Your task to perform on an android device: Set the phone to "Do not disturb". Image 0: 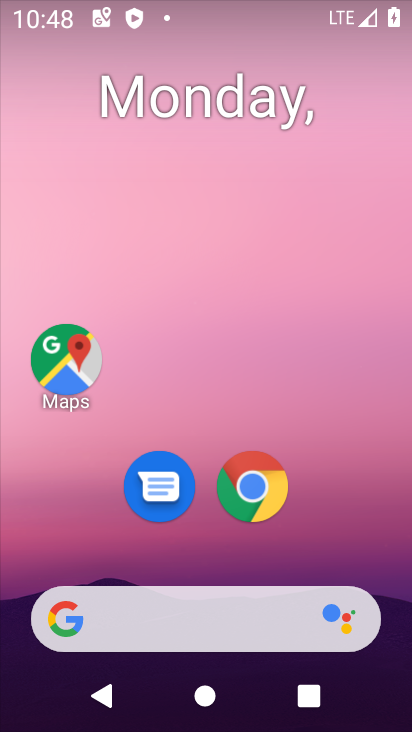
Step 0: press home button
Your task to perform on an android device: Set the phone to "Do not disturb". Image 1: 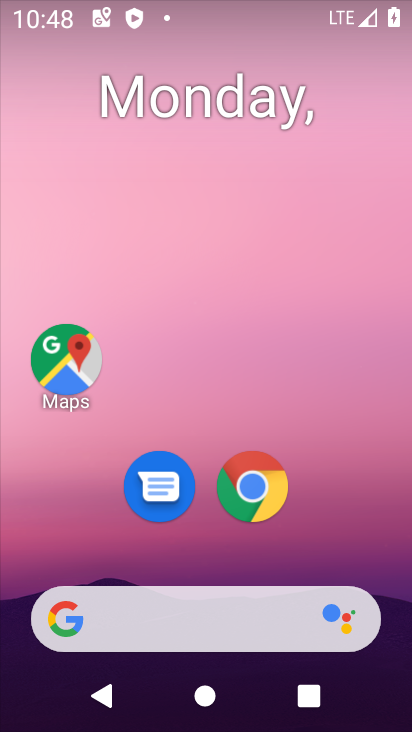
Step 1: drag from (268, 9) to (182, 442)
Your task to perform on an android device: Set the phone to "Do not disturb". Image 2: 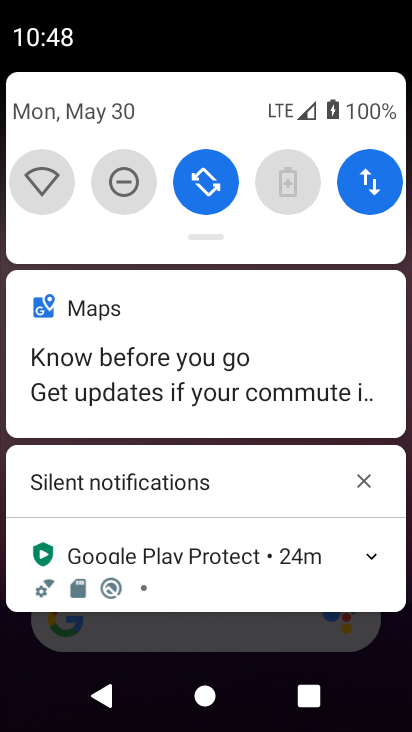
Step 2: click (114, 188)
Your task to perform on an android device: Set the phone to "Do not disturb". Image 3: 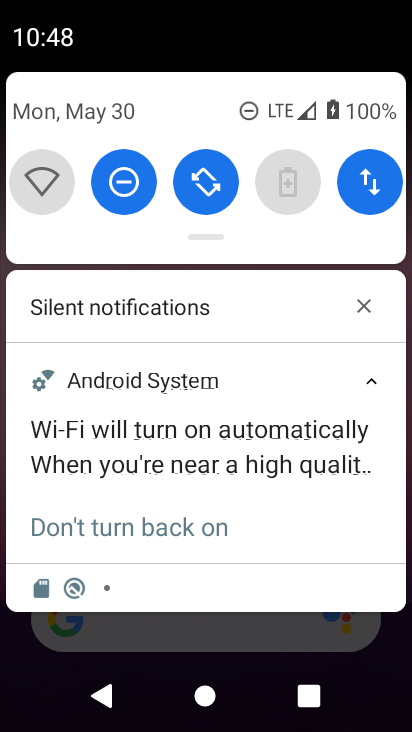
Step 3: task complete